Your task to perform on an android device: turn off wifi Image 0: 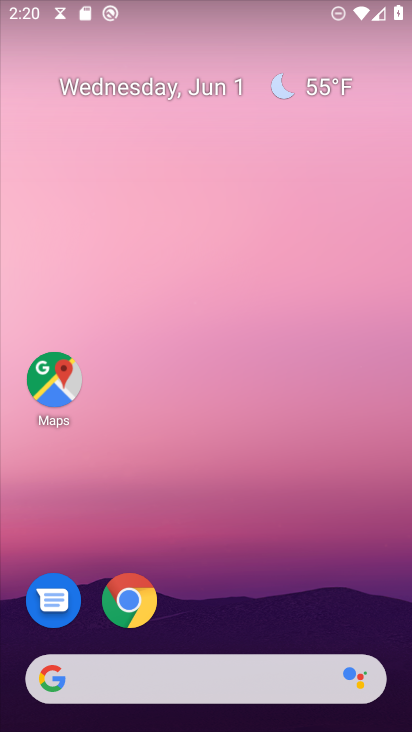
Step 0: drag from (290, 594) to (204, 240)
Your task to perform on an android device: turn off wifi Image 1: 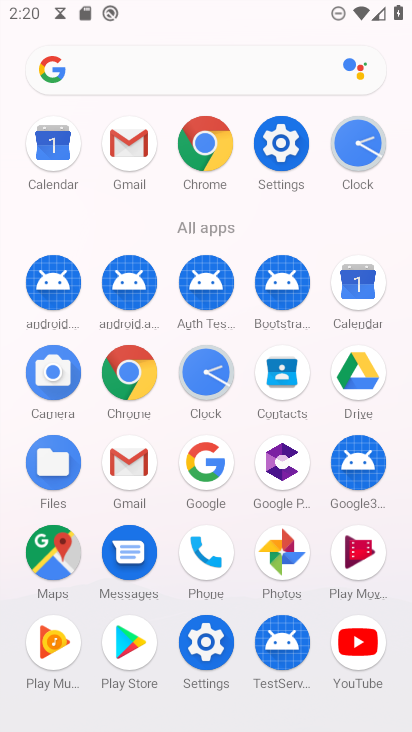
Step 1: click (280, 148)
Your task to perform on an android device: turn off wifi Image 2: 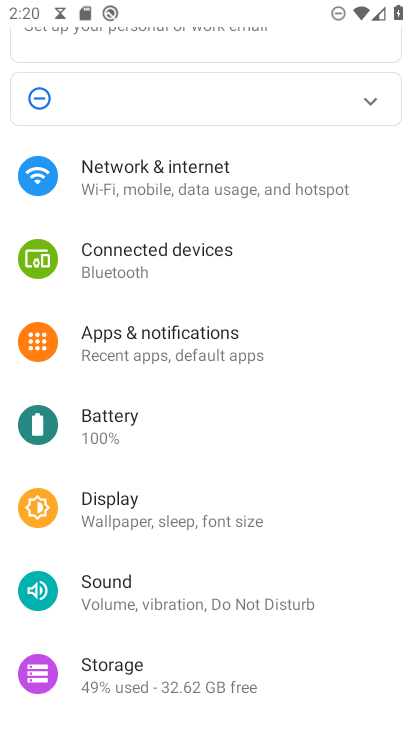
Step 2: click (251, 171)
Your task to perform on an android device: turn off wifi Image 3: 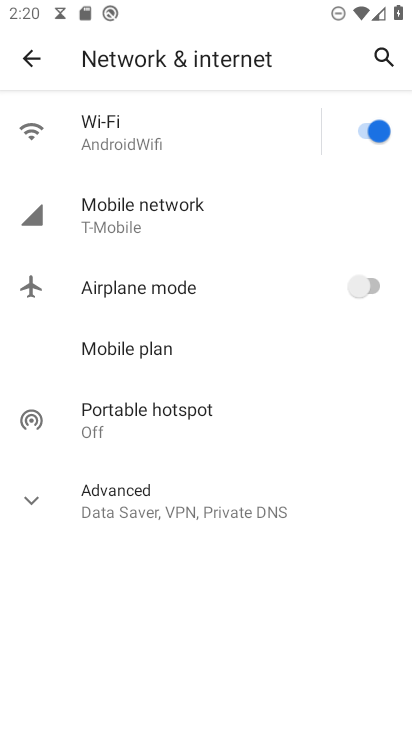
Step 3: click (344, 139)
Your task to perform on an android device: turn off wifi Image 4: 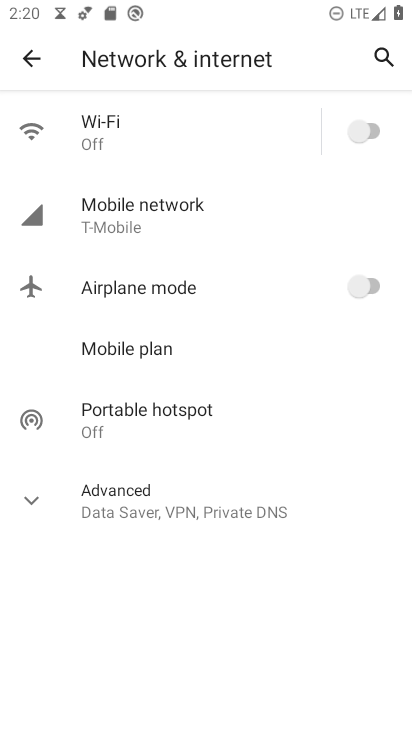
Step 4: task complete